Your task to perform on an android device: Show me productivity apps on the Play Store Image 0: 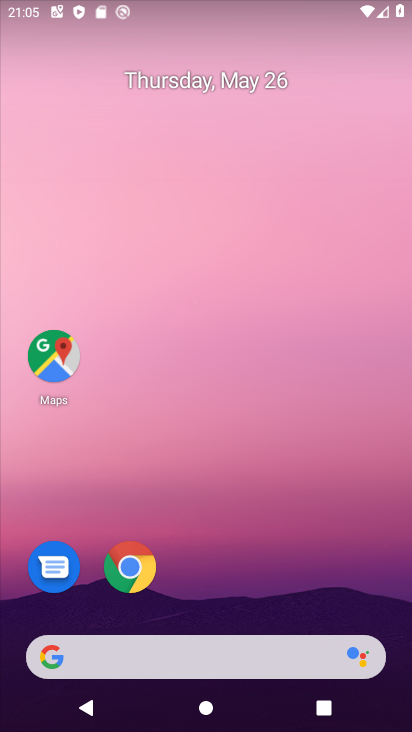
Step 0: drag from (254, 608) to (240, 146)
Your task to perform on an android device: Show me productivity apps on the Play Store Image 1: 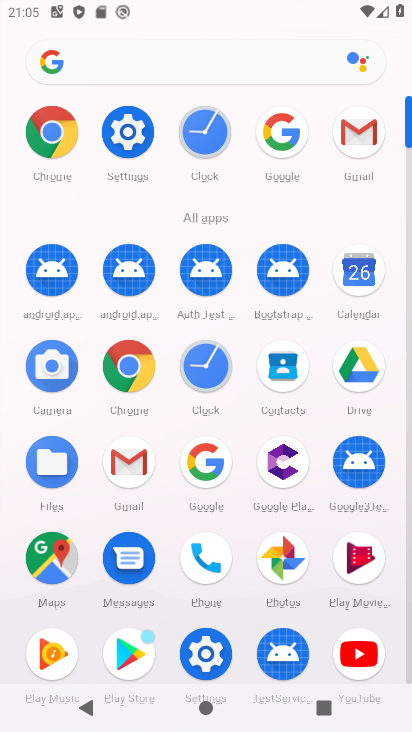
Step 1: click (129, 646)
Your task to perform on an android device: Show me productivity apps on the Play Store Image 2: 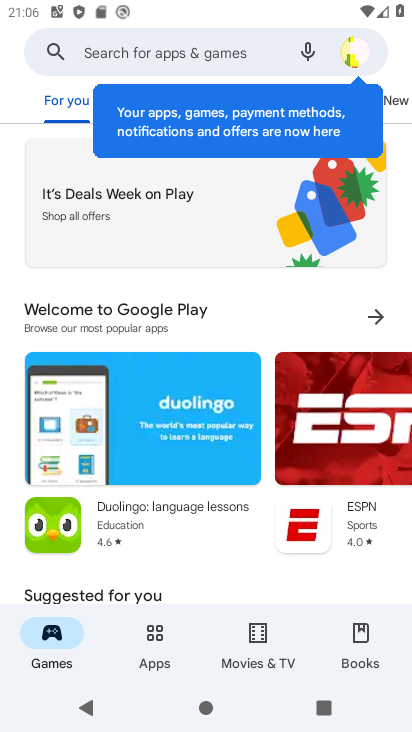
Step 2: click (187, 59)
Your task to perform on an android device: Show me productivity apps on the Play Store Image 3: 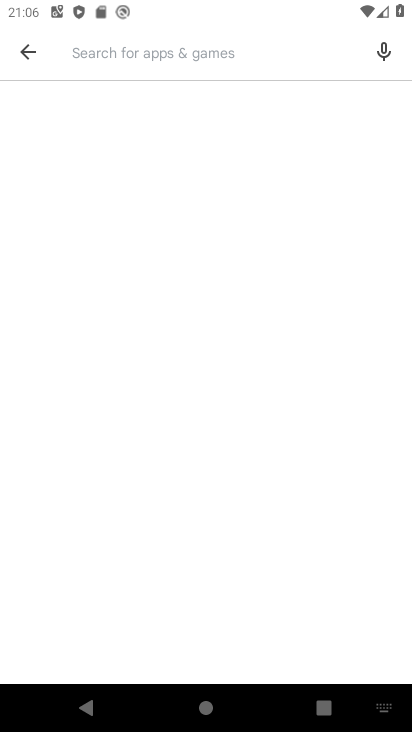
Step 3: type "productivity apps"
Your task to perform on an android device: Show me productivity apps on the Play Store Image 4: 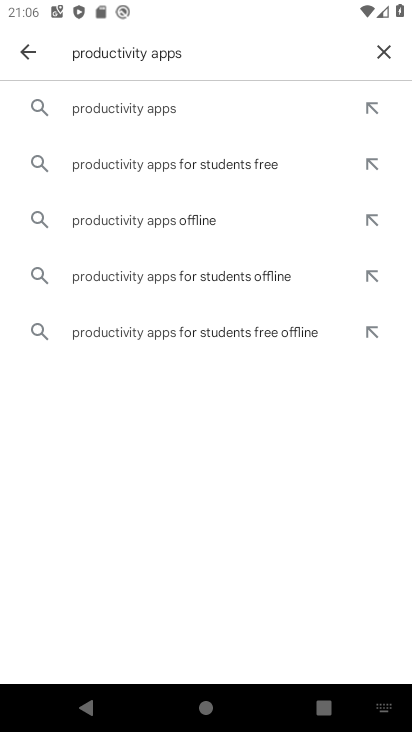
Step 4: click (163, 118)
Your task to perform on an android device: Show me productivity apps on the Play Store Image 5: 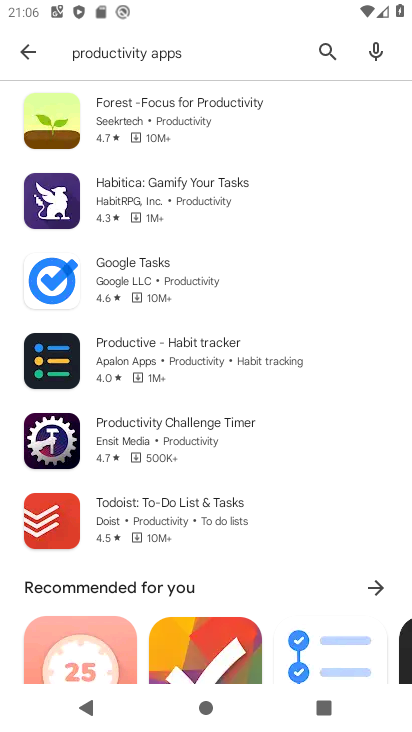
Step 5: task complete